Your task to perform on an android device: turn off smart reply in the gmail app Image 0: 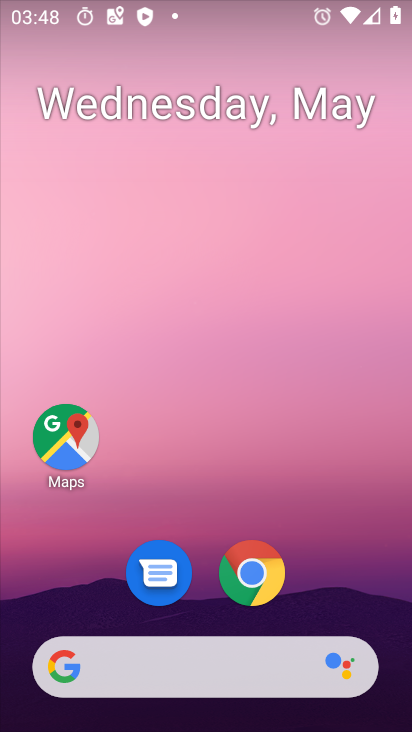
Step 0: drag from (205, 726) to (192, 7)
Your task to perform on an android device: turn off smart reply in the gmail app Image 1: 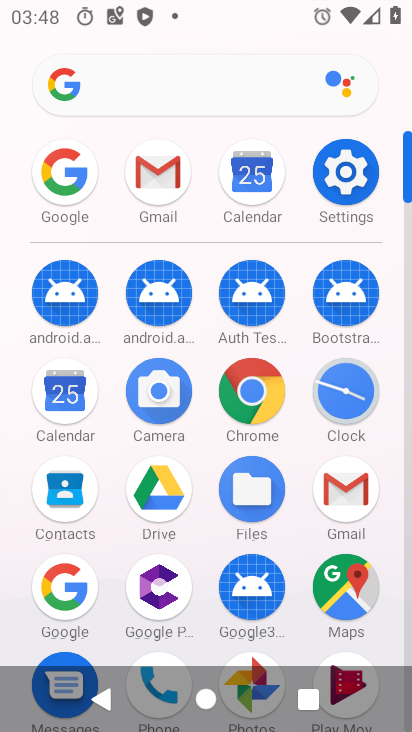
Step 1: click (342, 490)
Your task to perform on an android device: turn off smart reply in the gmail app Image 2: 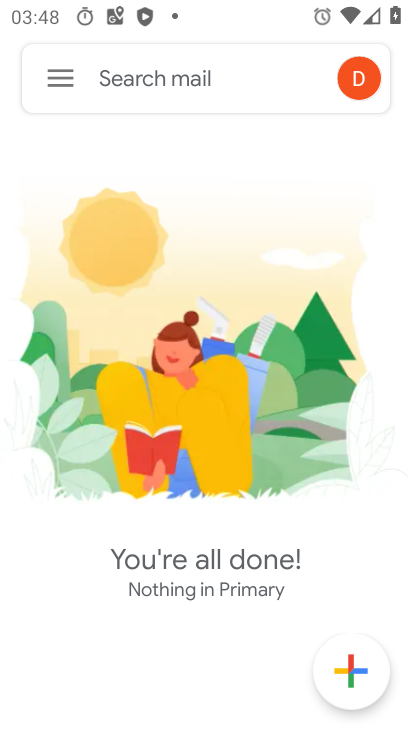
Step 2: click (56, 85)
Your task to perform on an android device: turn off smart reply in the gmail app Image 3: 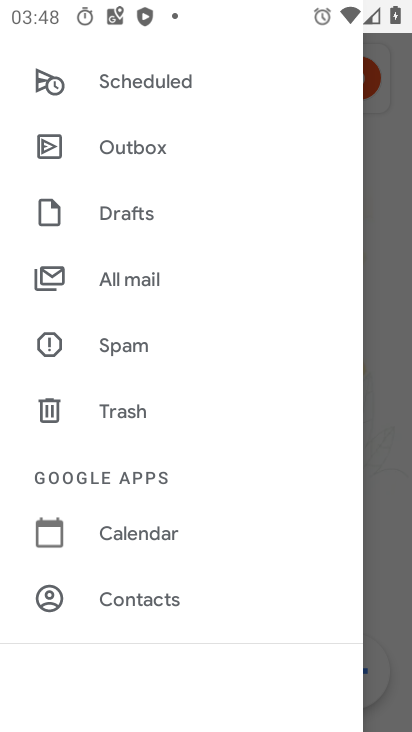
Step 3: drag from (141, 588) to (141, 168)
Your task to perform on an android device: turn off smart reply in the gmail app Image 4: 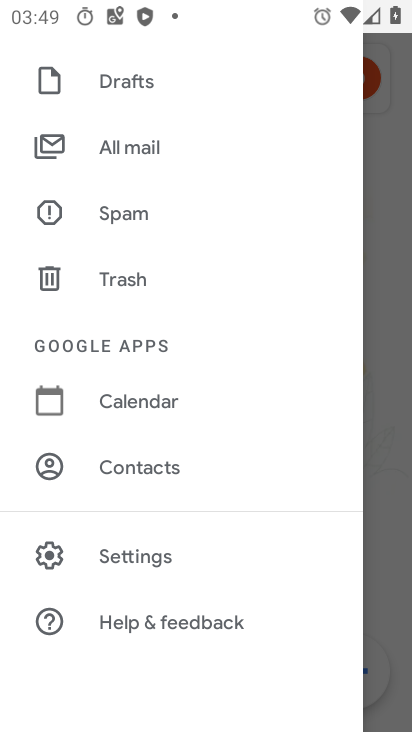
Step 4: click (134, 555)
Your task to perform on an android device: turn off smart reply in the gmail app Image 5: 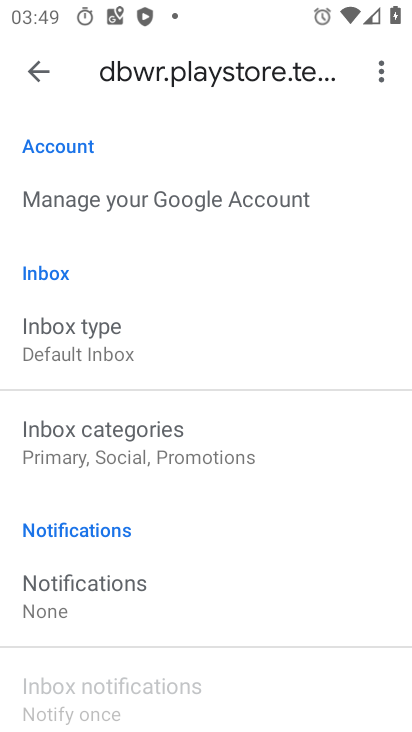
Step 5: drag from (76, 661) to (119, 267)
Your task to perform on an android device: turn off smart reply in the gmail app Image 6: 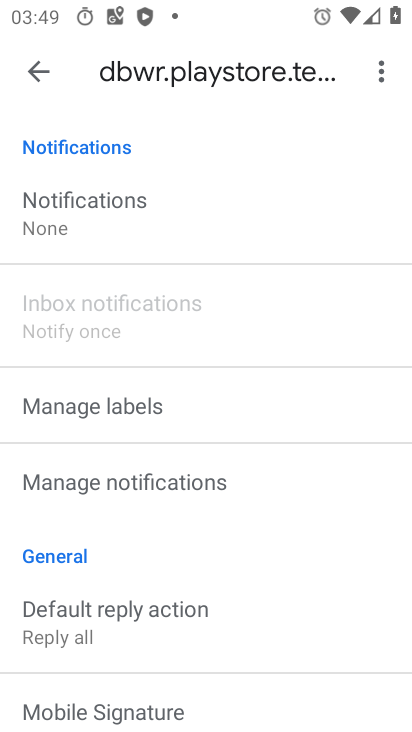
Step 6: drag from (103, 639) to (102, 221)
Your task to perform on an android device: turn off smart reply in the gmail app Image 7: 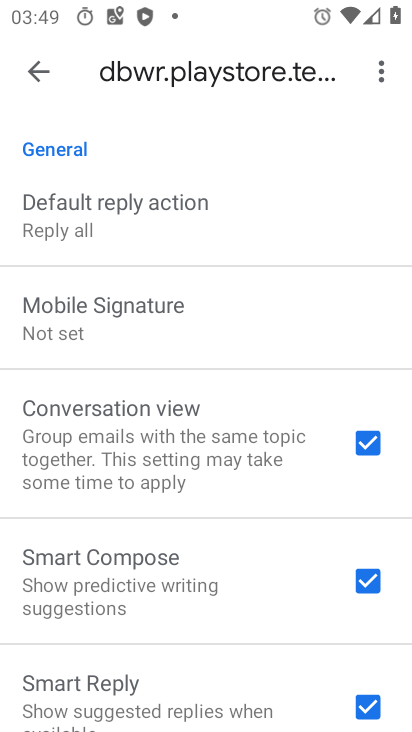
Step 7: click (370, 700)
Your task to perform on an android device: turn off smart reply in the gmail app Image 8: 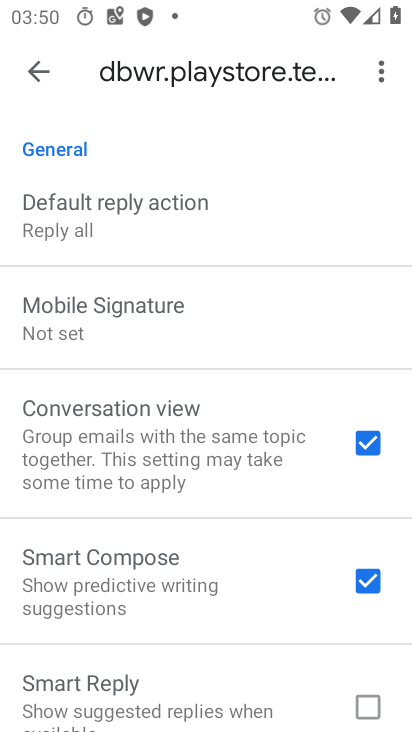
Step 8: task complete